Your task to perform on an android device: Go to privacy settings Image 0: 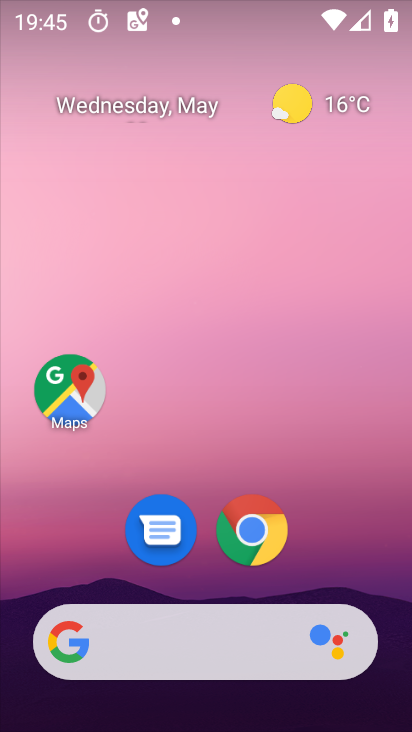
Step 0: drag from (184, 558) to (183, 316)
Your task to perform on an android device: Go to privacy settings Image 1: 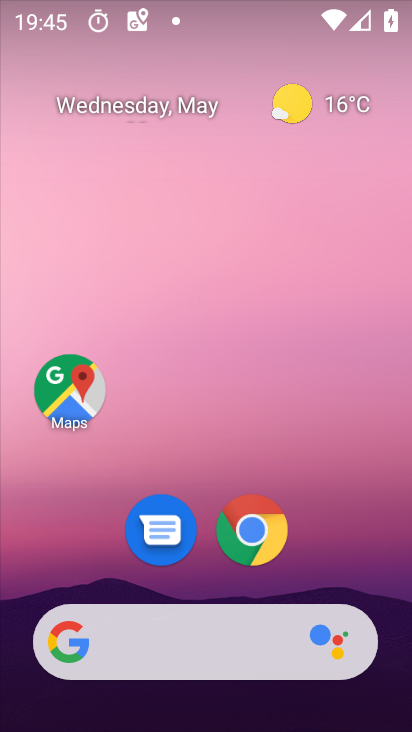
Step 1: drag from (210, 576) to (196, 255)
Your task to perform on an android device: Go to privacy settings Image 2: 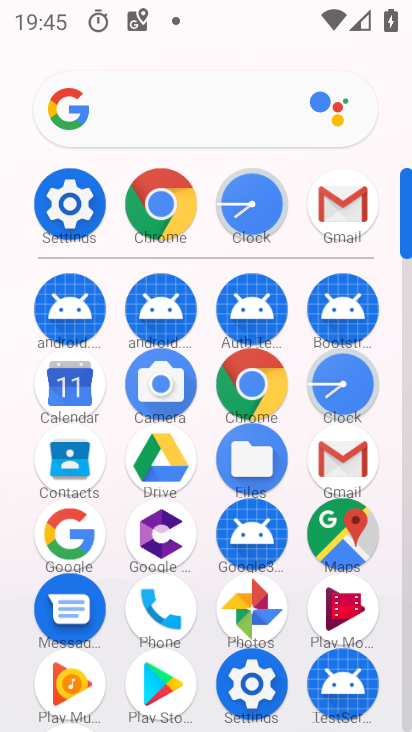
Step 2: click (250, 667)
Your task to perform on an android device: Go to privacy settings Image 3: 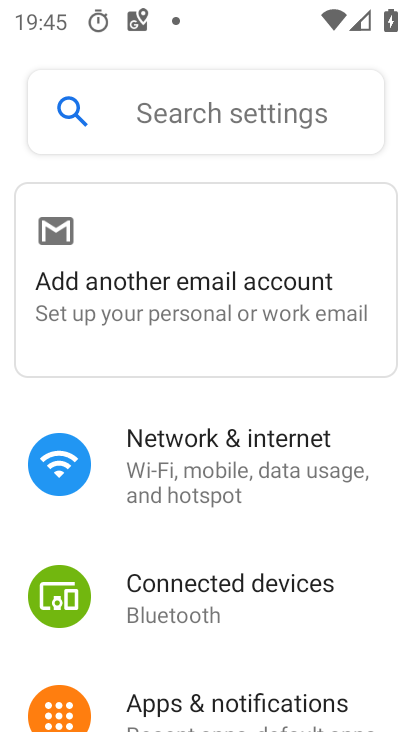
Step 3: drag from (266, 633) to (348, 318)
Your task to perform on an android device: Go to privacy settings Image 4: 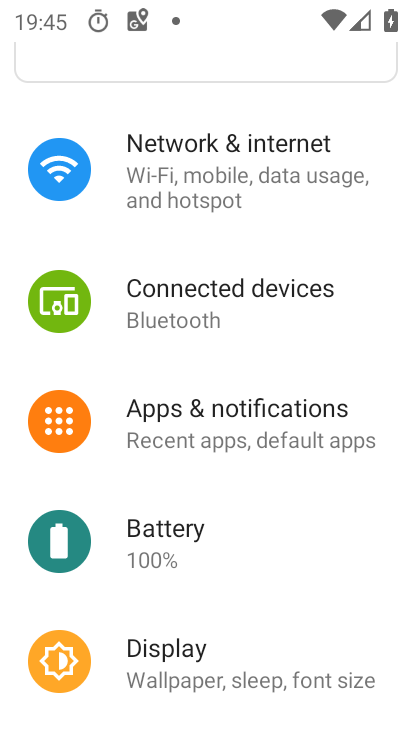
Step 4: drag from (286, 605) to (399, 335)
Your task to perform on an android device: Go to privacy settings Image 5: 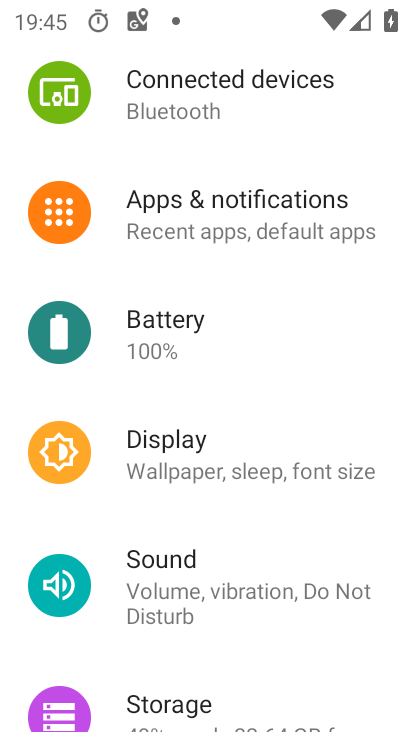
Step 5: drag from (289, 644) to (351, 414)
Your task to perform on an android device: Go to privacy settings Image 6: 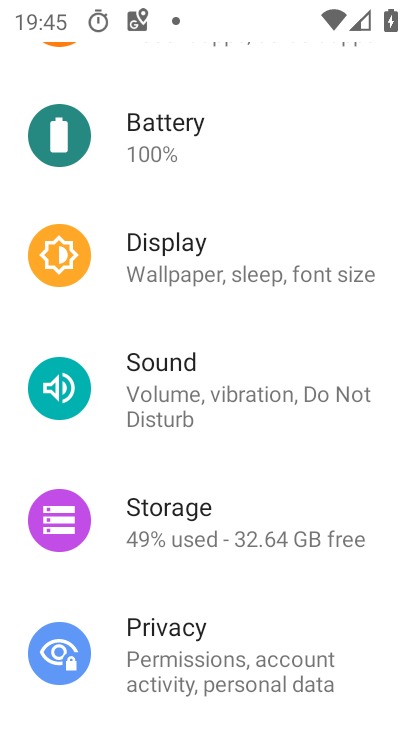
Step 6: click (241, 657)
Your task to perform on an android device: Go to privacy settings Image 7: 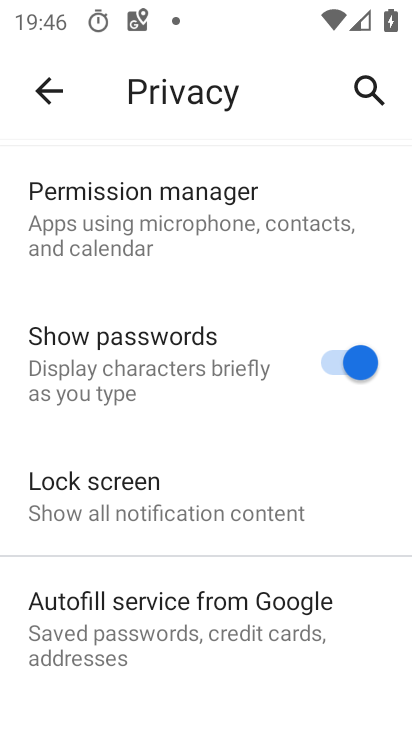
Step 7: task complete